Your task to perform on an android device: Open ESPN.com Image 0: 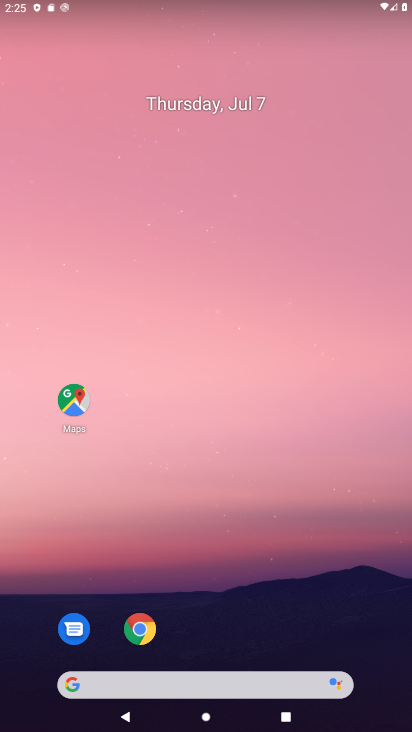
Step 0: click (151, 639)
Your task to perform on an android device: Open ESPN.com Image 1: 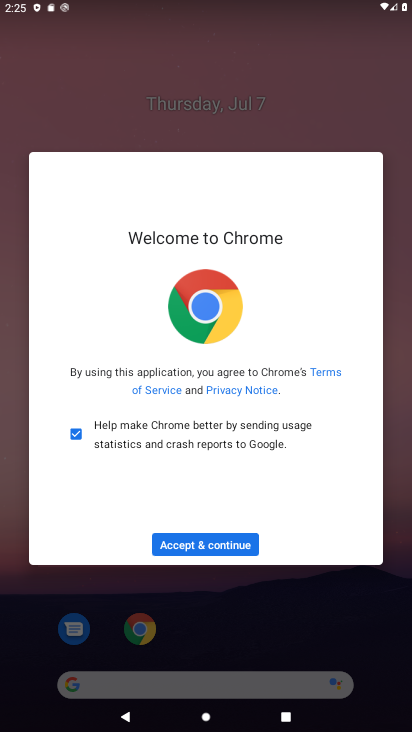
Step 1: click (198, 544)
Your task to perform on an android device: Open ESPN.com Image 2: 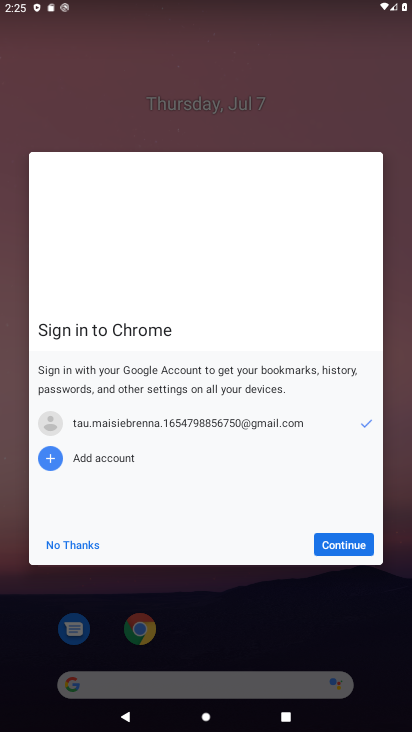
Step 2: click (334, 540)
Your task to perform on an android device: Open ESPN.com Image 3: 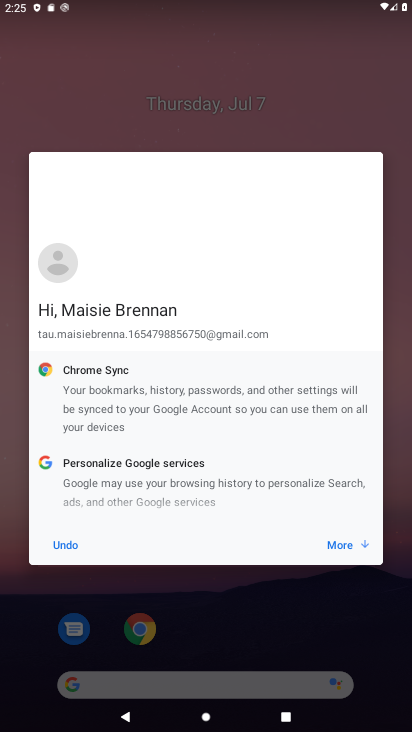
Step 3: click (334, 540)
Your task to perform on an android device: Open ESPN.com Image 4: 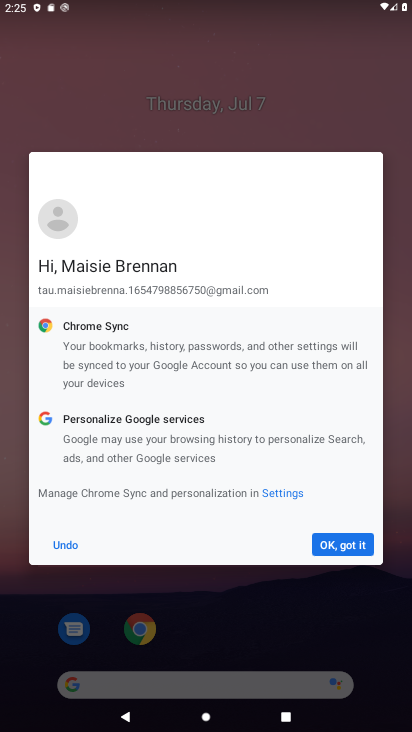
Step 4: click (356, 548)
Your task to perform on an android device: Open ESPN.com Image 5: 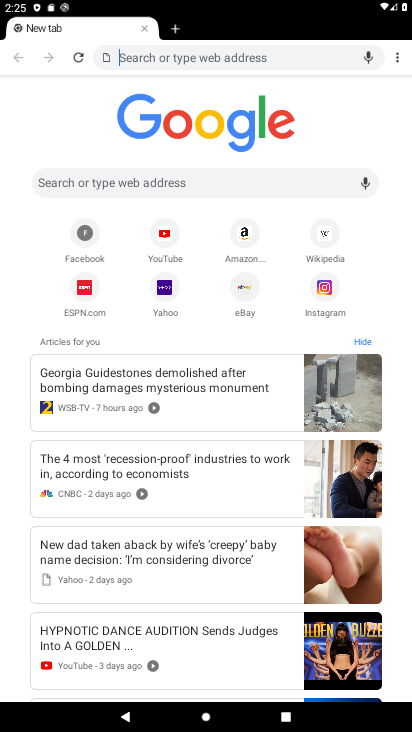
Step 5: click (84, 283)
Your task to perform on an android device: Open ESPN.com Image 6: 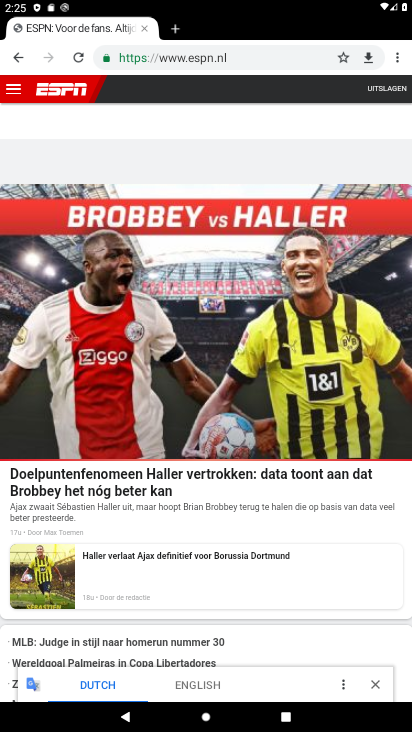
Step 6: task complete